Your task to perform on an android device: turn notification dots on Image 0: 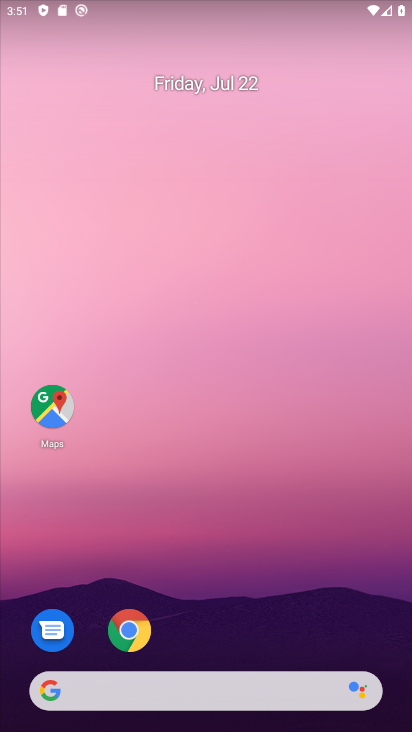
Step 0: drag from (214, 685) to (226, 0)
Your task to perform on an android device: turn notification dots on Image 1: 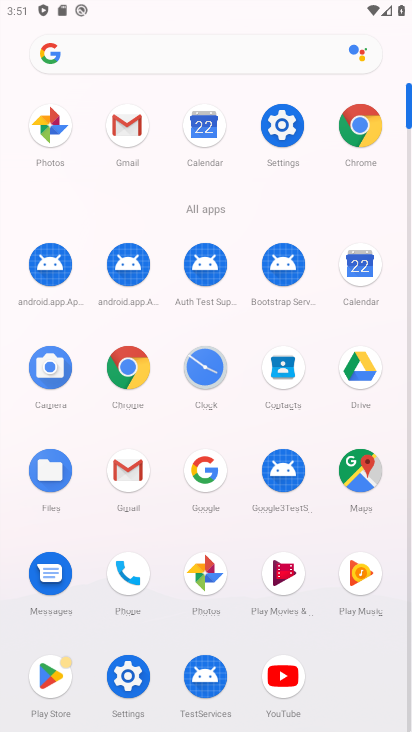
Step 1: click (285, 129)
Your task to perform on an android device: turn notification dots on Image 2: 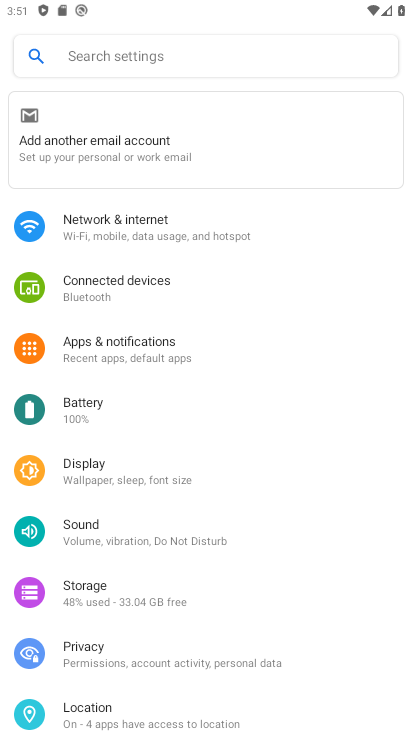
Step 2: click (139, 346)
Your task to perform on an android device: turn notification dots on Image 3: 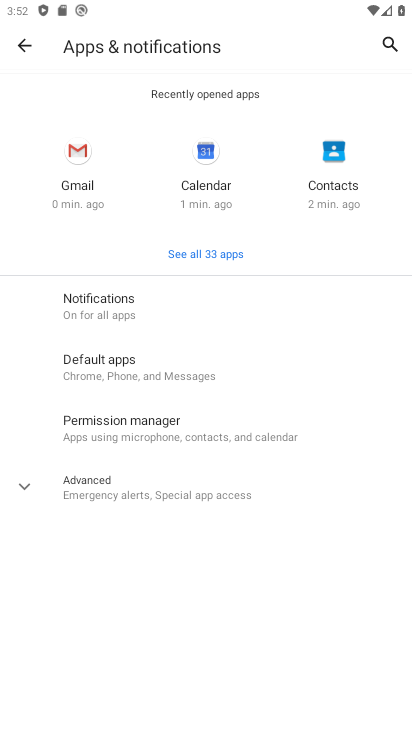
Step 3: click (125, 307)
Your task to perform on an android device: turn notification dots on Image 4: 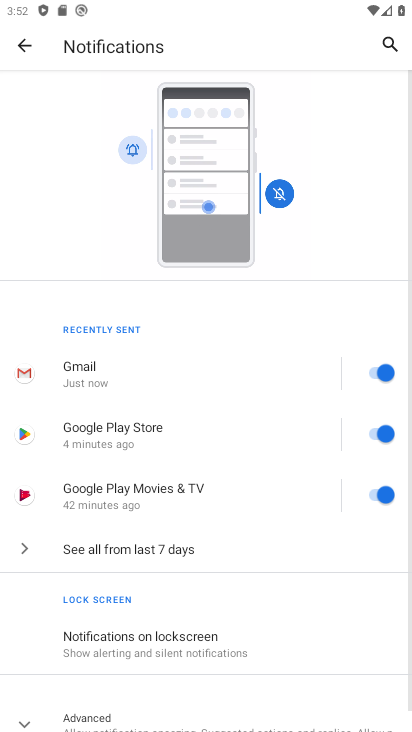
Step 4: drag from (147, 640) to (155, 217)
Your task to perform on an android device: turn notification dots on Image 5: 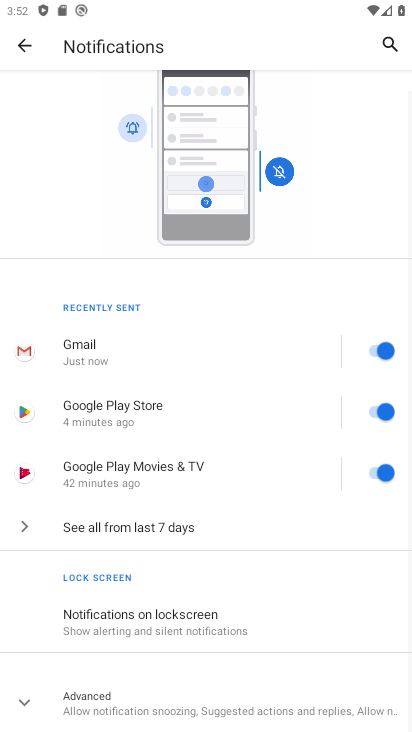
Step 5: click (217, 704)
Your task to perform on an android device: turn notification dots on Image 6: 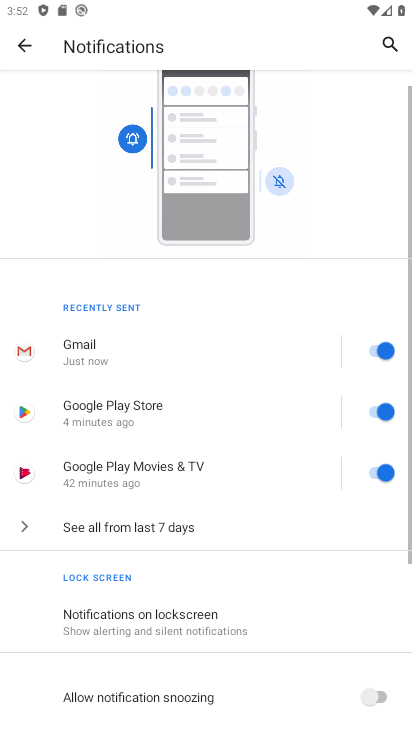
Step 6: drag from (217, 704) to (204, 202)
Your task to perform on an android device: turn notification dots on Image 7: 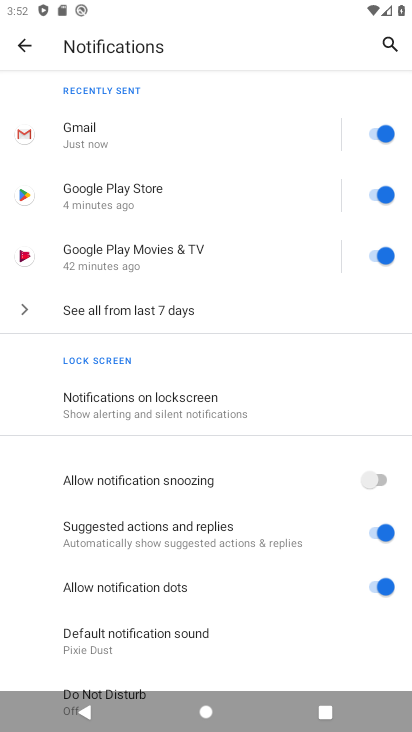
Step 7: click (380, 582)
Your task to perform on an android device: turn notification dots on Image 8: 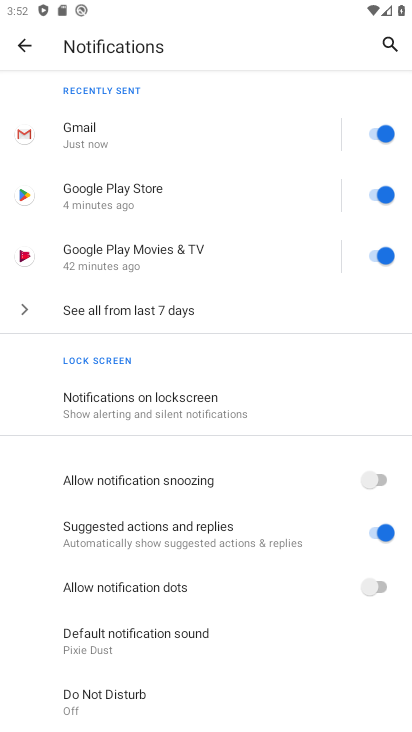
Step 8: task complete